Your task to perform on an android device: Open the stopwatch Image 0: 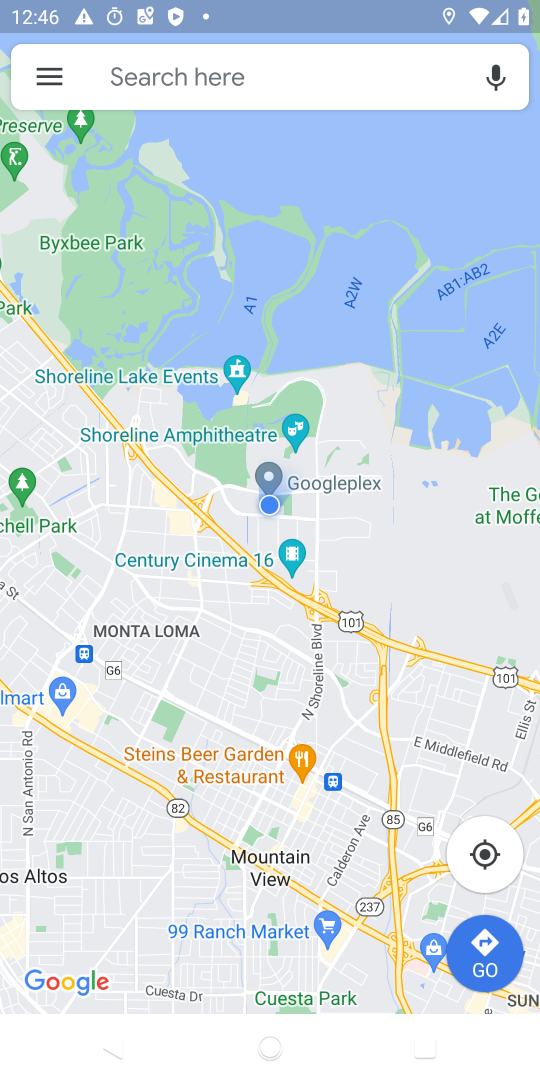
Step 0: press home button
Your task to perform on an android device: Open the stopwatch Image 1: 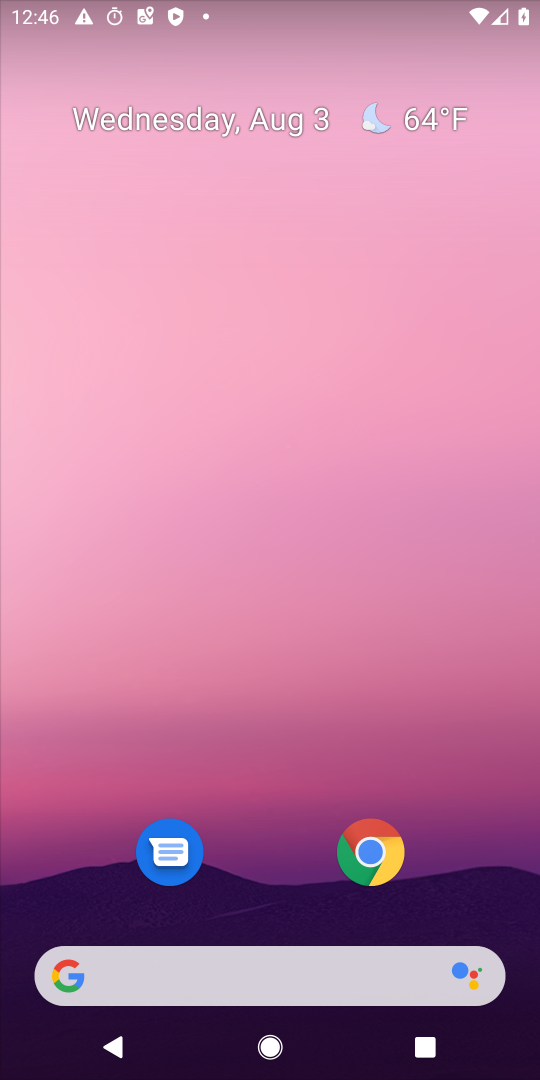
Step 1: drag from (484, 888) to (237, 54)
Your task to perform on an android device: Open the stopwatch Image 2: 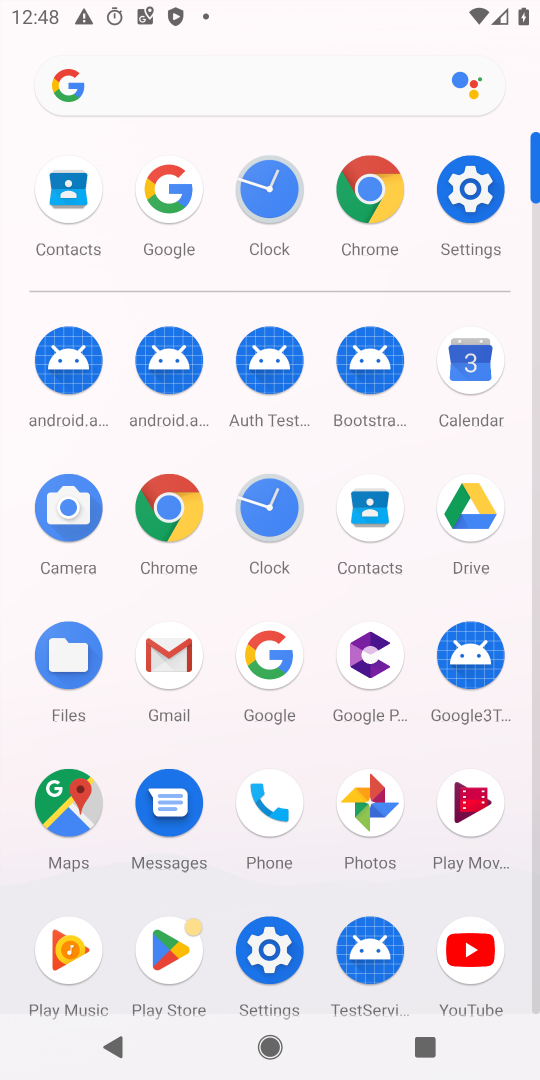
Step 2: click (252, 516)
Your task to perform on an android device: Open the stopwatch Image 3: 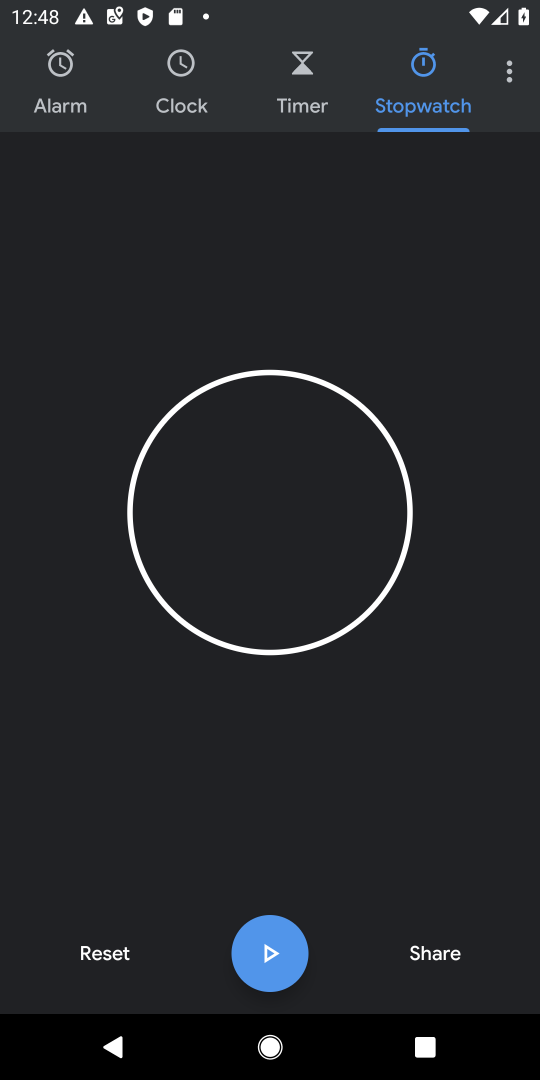
Step 3: task complete